Your task to perform on an android device: Open calendar and show me the third week of next month Image 0: 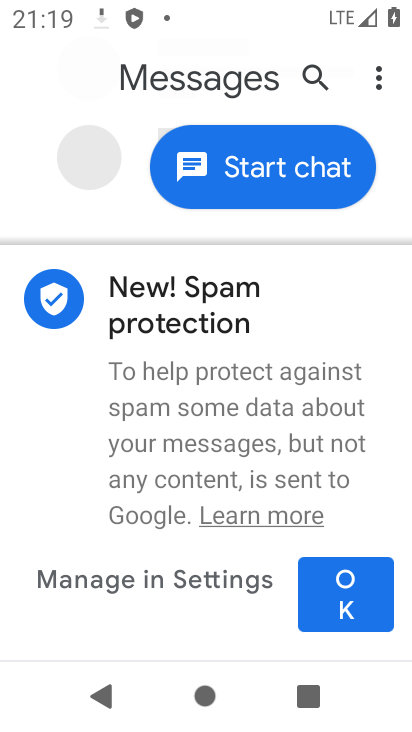
Step 0: press back button
Your task to perform on an android device: Open calendar and show me the third week of next month Image 1: 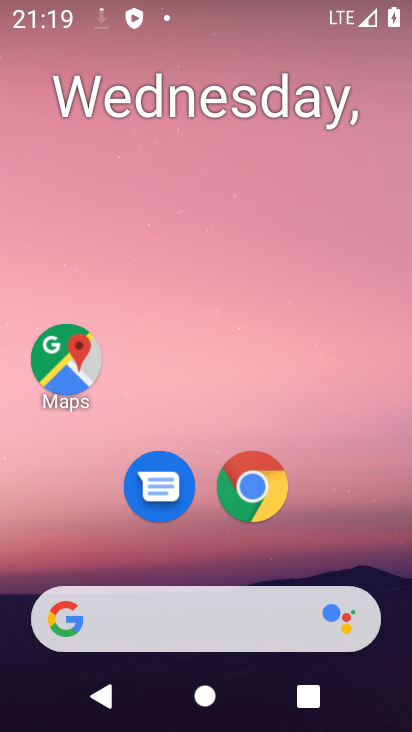
Step 1: drag from (191, 559) to (221, 43)
Your task to perform on an android device: Open calendar and show me the third week of next month Image 2: 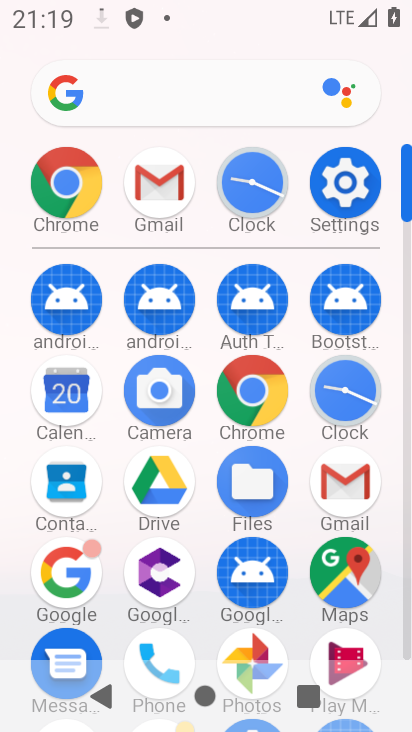
Step 2: click (50, 408)
Your task to perform on an android device: Open calendar and show me the third week of next month Image 3: 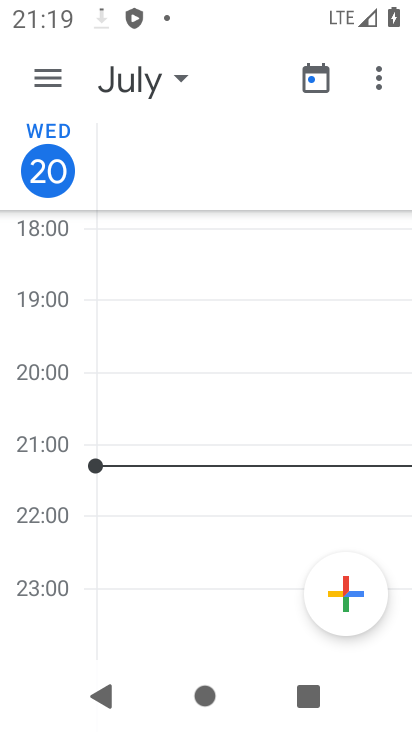
Step 3: click (168, 76)
Your task to perform on an android device: Open calendar and show me the third week of next month Image 4: 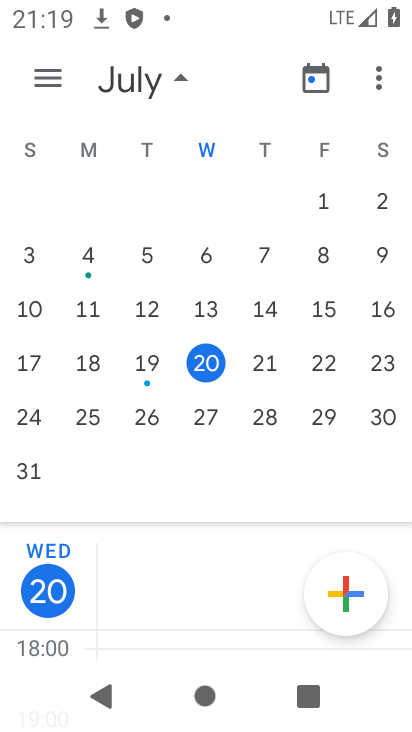
Step 4: drag from (374, 355) to (9, 333)
Your task to perform on an android device: Open calendar and show me the third week of next month Image 5: 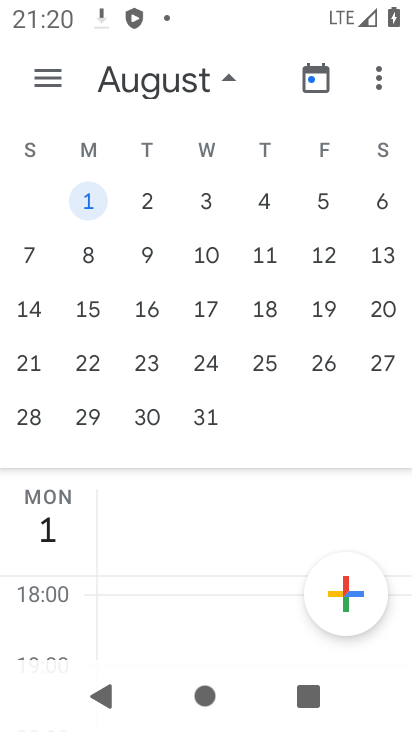
Step 5: click (80, 306)
Your task to perform on an android device: Open calendar and show me the third week of next month Image 6: 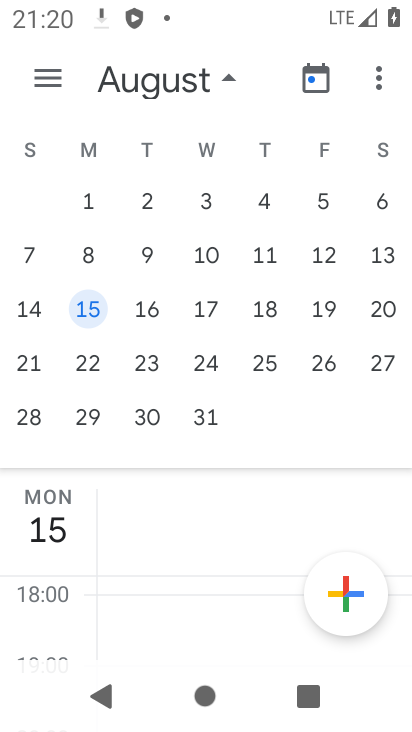
Step 6: task complete